Your task to perform on an android device: Search for "lg ultragear" on bestbuy, select the first entry, add it to the cart, then select checkout. Image 0: 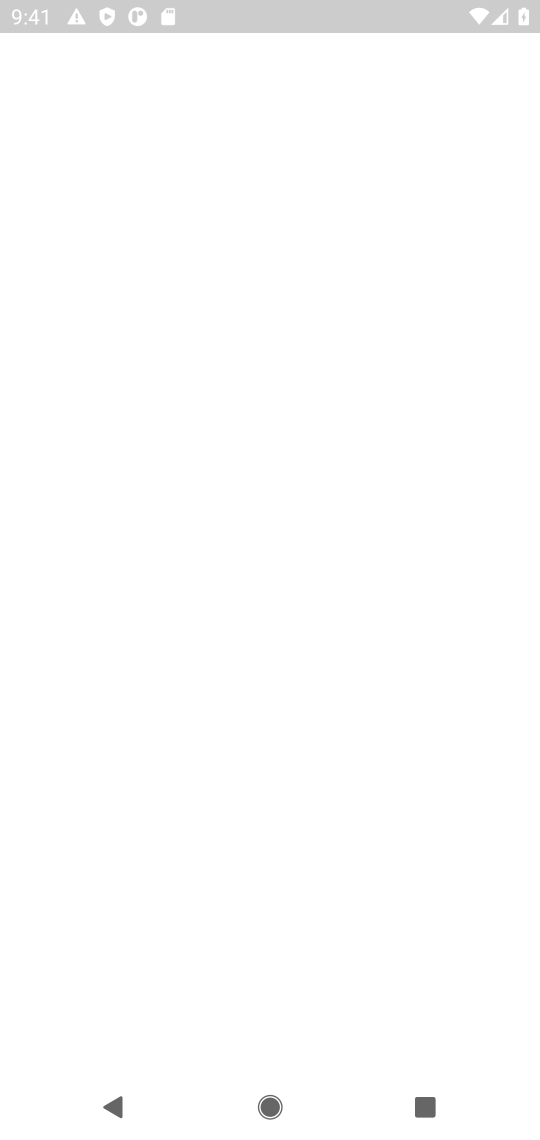
Step 0: press home button
Your task to perform on an android device: Search for "lg ultragear" on bestbuy, select the first entry, add it to the cart, then select checkout. Image 1: 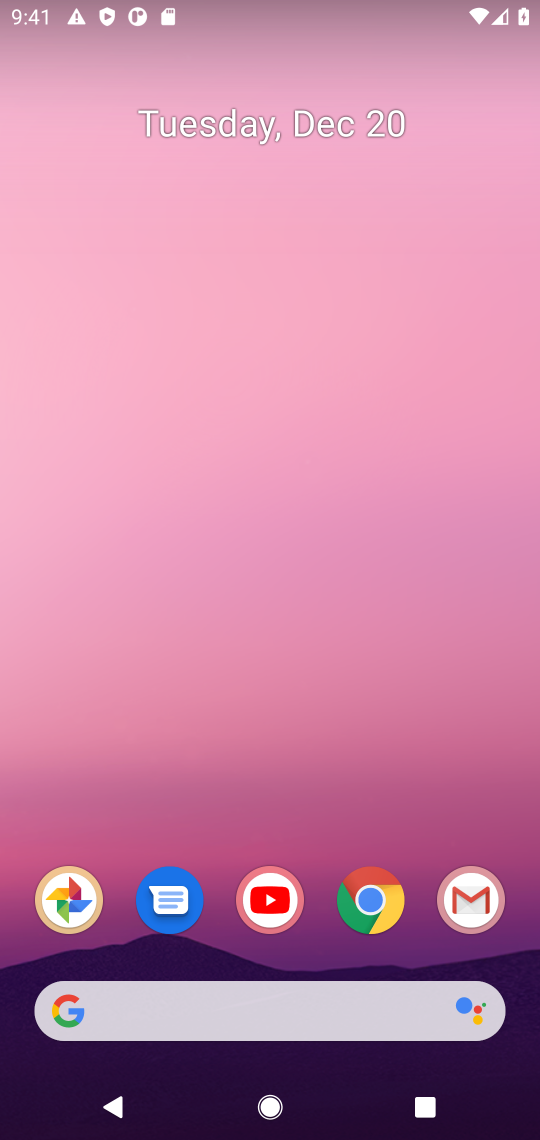
Step 1: click (370, 903)
Your task to perform on an android device: Search for "lg ultragear" on bestbuy, select the first entry, add it to the cart, then select checkout. Image 2: 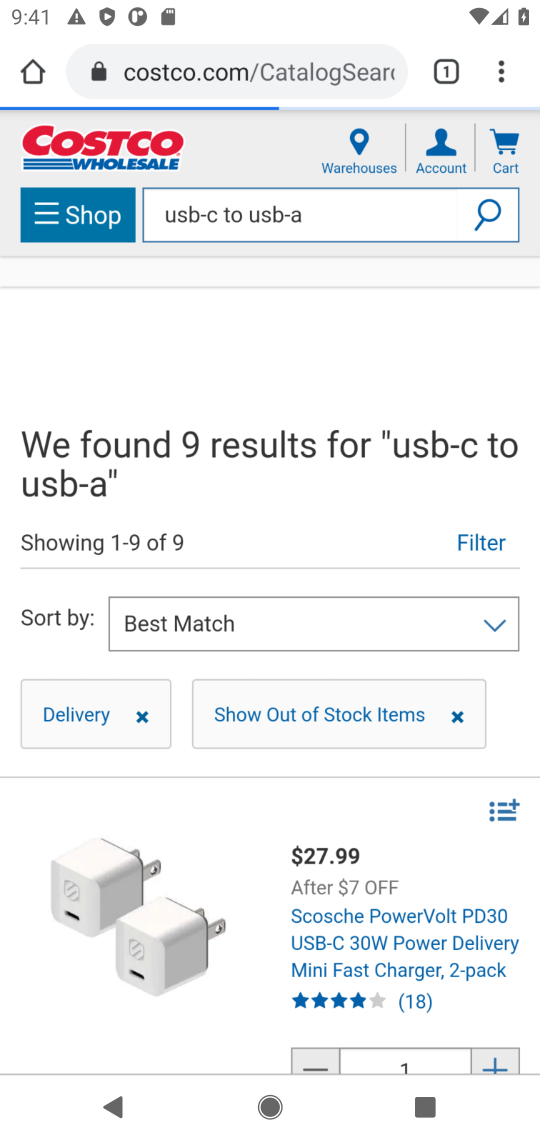
Step 2: click (248, 65)
Your task to perform on an android device: Search for "lg ultragear" on bestbuy, select the first entry, add it to the cart, then select checkout. Image 3: 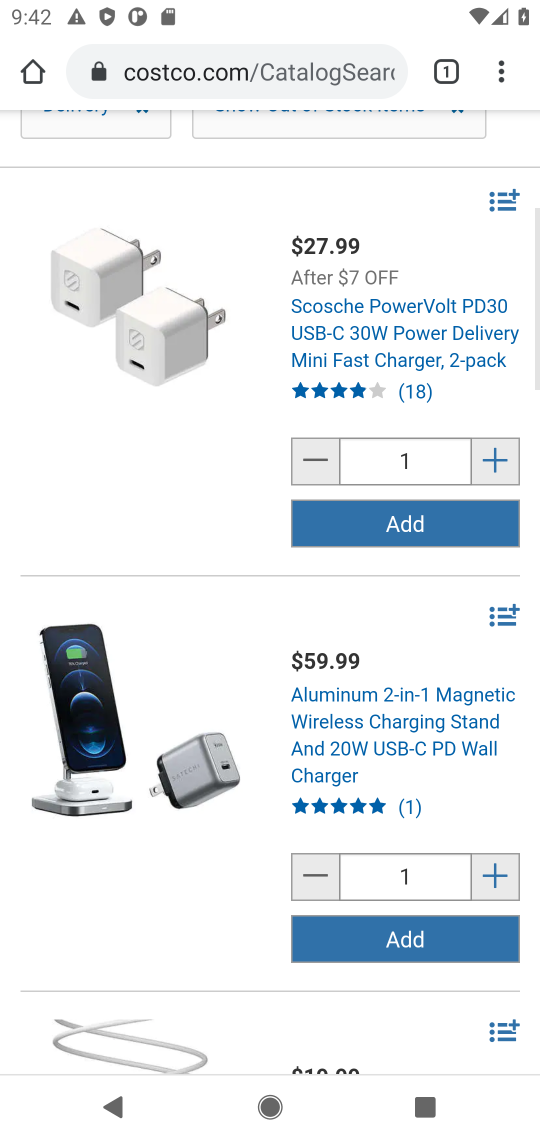
Step 3: click (206, 71)
Your task to perform on an android device: Search for "lg ultragear" on bestbuy, select the first entry, add it to the cart, then select checkout. Image 4: 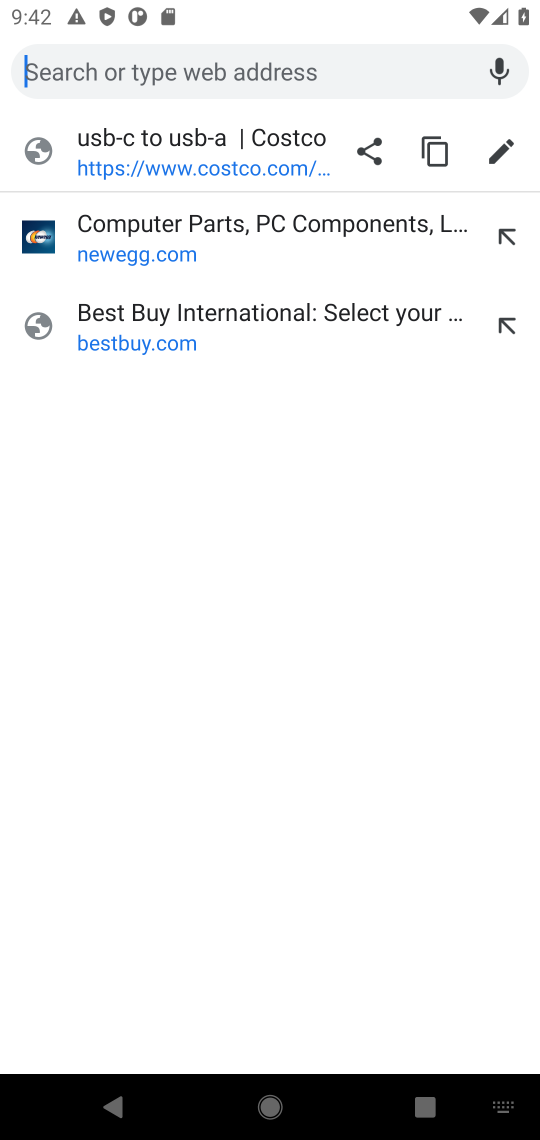
Step 4: click (116, 329)
Your task to perform on an android device: Search for "lg ultragear" on bestbuy, select the first entry, add it to the cart, then select checkout. Image 5: 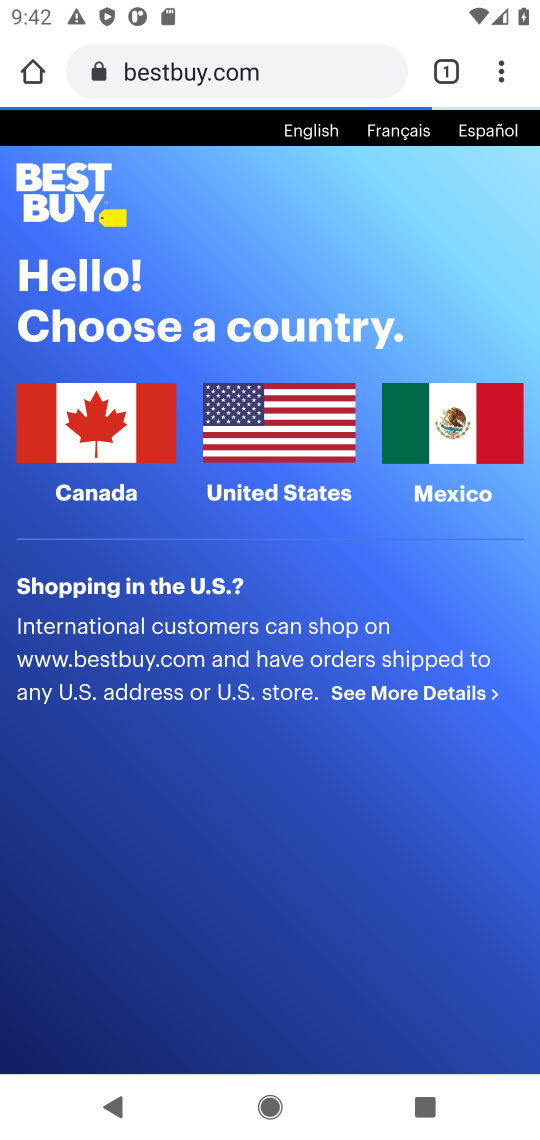
Step 5: click (254, 413)
Your task to perform on an android device: Search for "lg ultragear" on bestbuy, select the first entry, add it to the cart, then select checkout. Image 6: 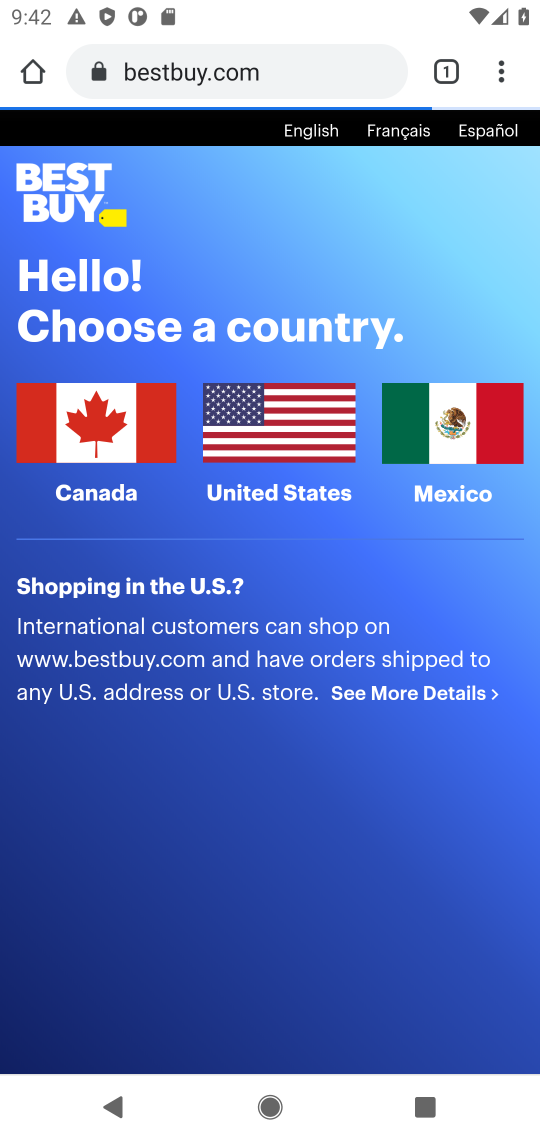
Step 6: click (254, 413)
Your task to perform on an android device: Search for "lg ultragear" on bestbuy, select the first entry, add it to the cart, then select checkout. Image 7: 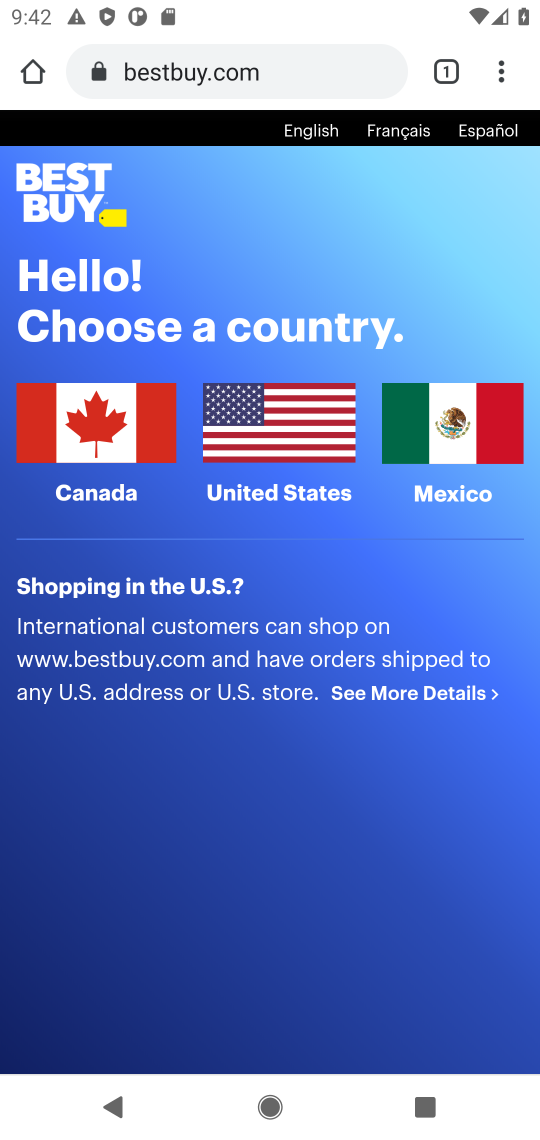
Step 7: click (275, 493)
Your task to perform on an android device: Search for "lg ultragear" on bestbuy, select the first entry, add it to the cart, then select checkout. Image 8: 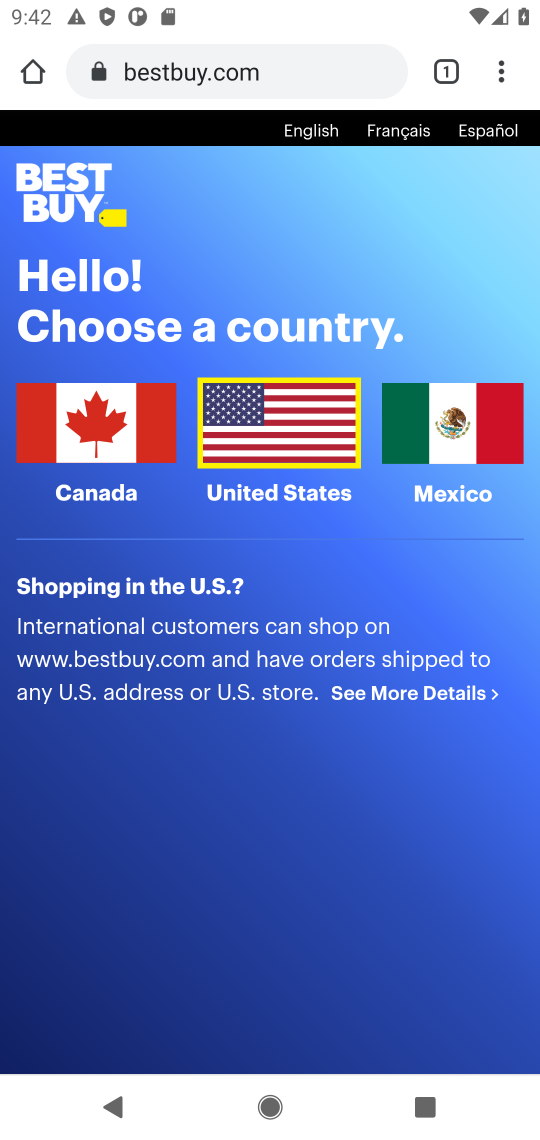
Step 8: click (273, 460)
Your task to perform on an android device: Search for "lg ultragear" on bestbuy, select the first entry, add it to the cart, then select checkout. Image 9: 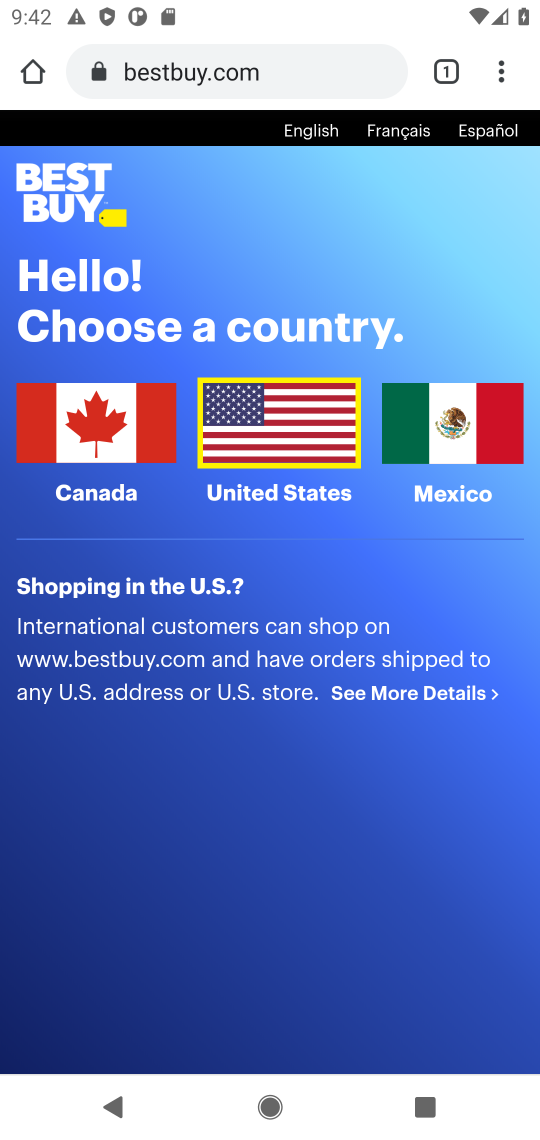
Step 9: click (276, 433)
Your task to perform on an android device: Search for "lg ultragear" on bestbuy, select the first entry, add it to the cart, then select checkout. Image 10: 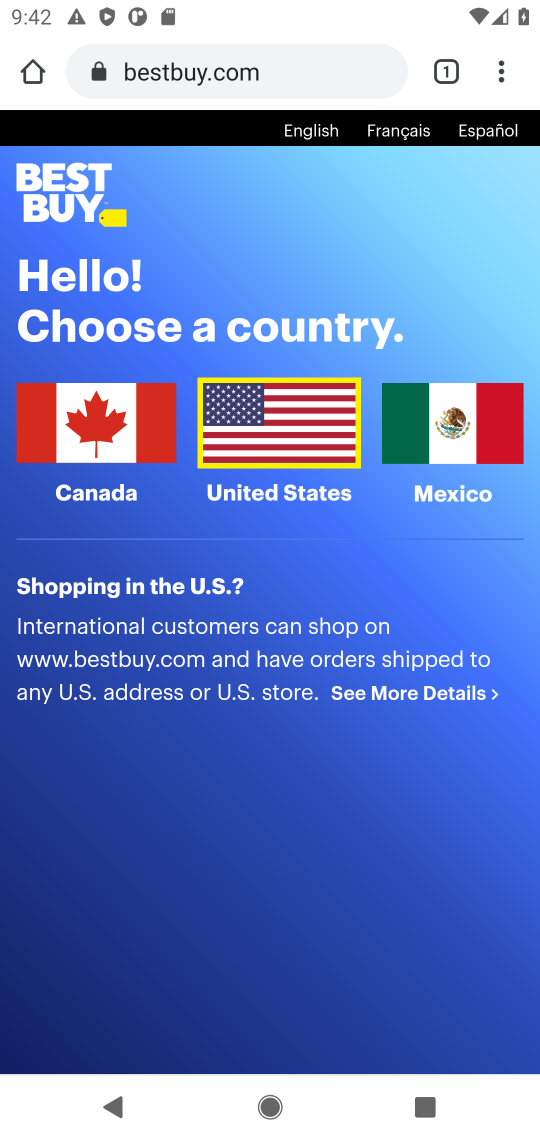
Step 10: click (276, 433)
Your task to perform on an android device: Search for "lg ultragear" on bestbuy, select the first entry, add it to the cart, then select checkout. Image 11: 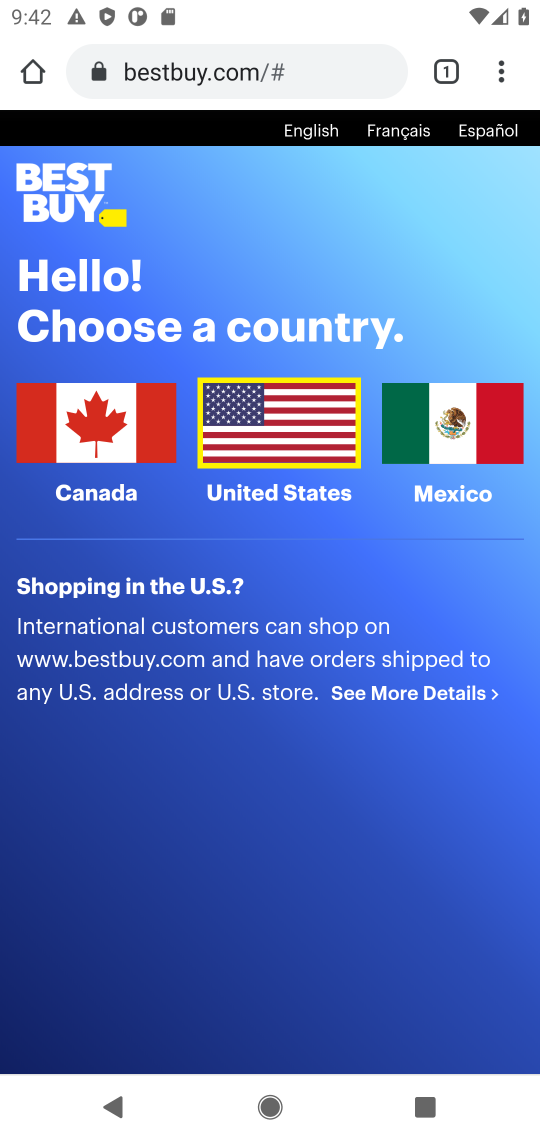
Step 11: click (276, 433)
Your task to perform on an android device: Search for "lg ultragear" on bestbuy, select the first entry, add it to the cart, then select checkout. Image 12: 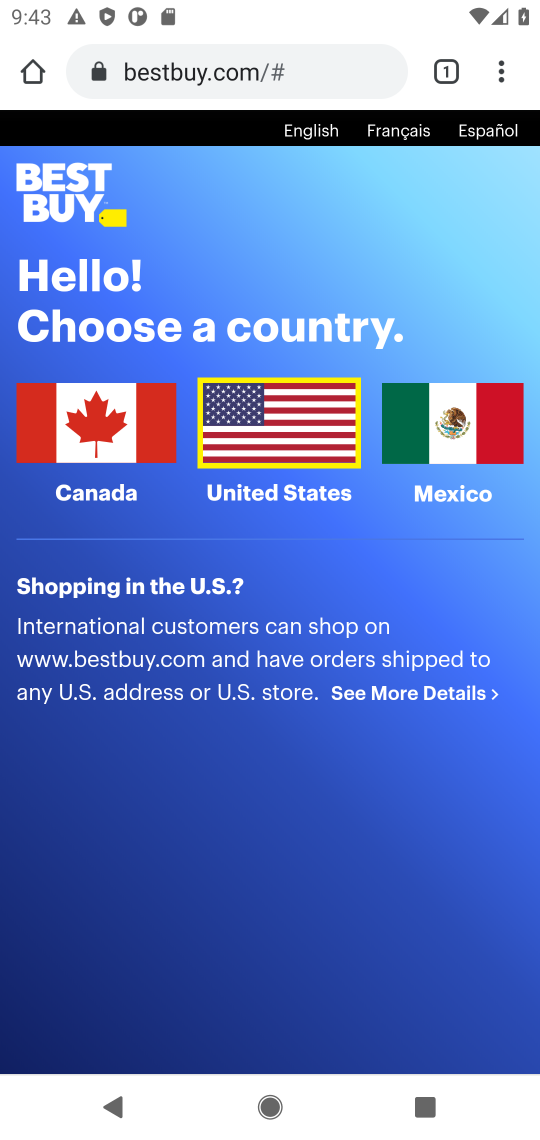
Step 12: click (280, 501)
Your task to perform on an android device: Search for "lg ultragear" on bestbuy, select the first entry, add it to the cart, then select checkout. Image 13: 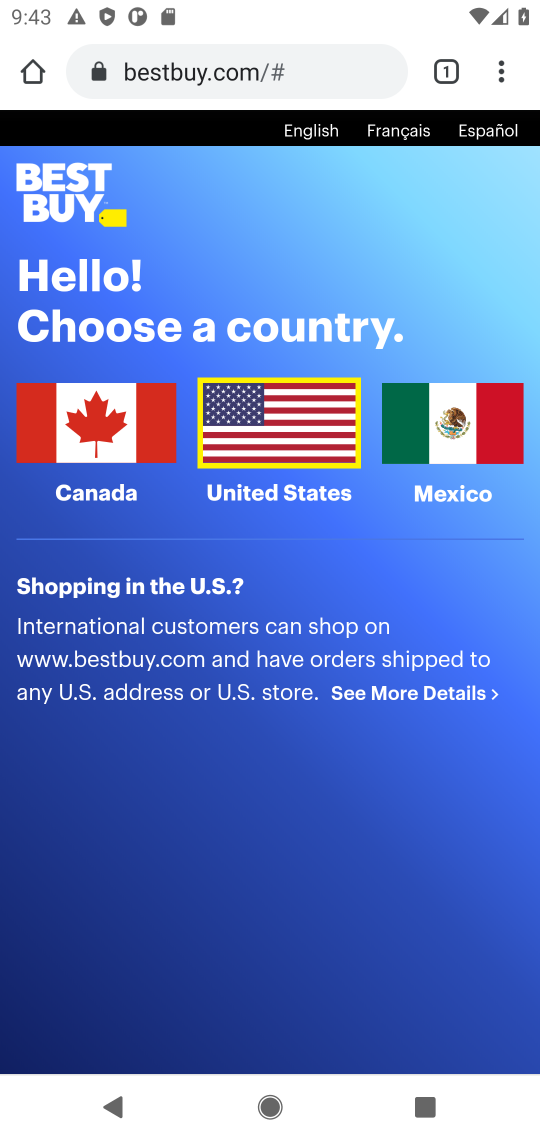
Step 13: click (280, 490)
Your task to perform on an android device: Search for "lg ultragear" on bestbuy, select the first entry, add it to the cart, then select checkout. Image 14: 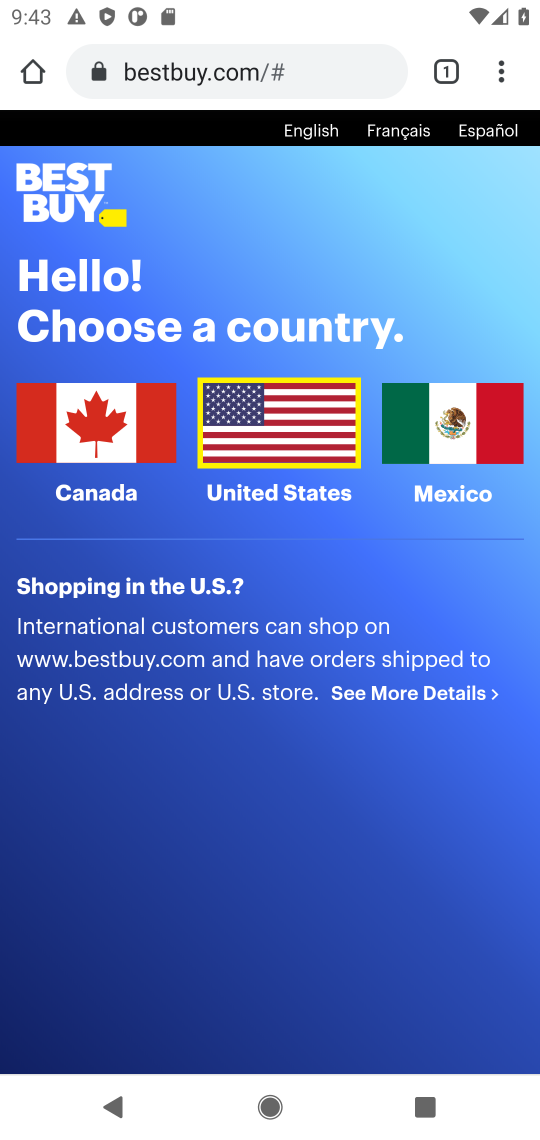
Step 14: click (260, 444)
Your task to perform on an android device: Search for "lg ultragear" on bestbuy, select the first entry, add it to the cart, then select checkout. Image 15: 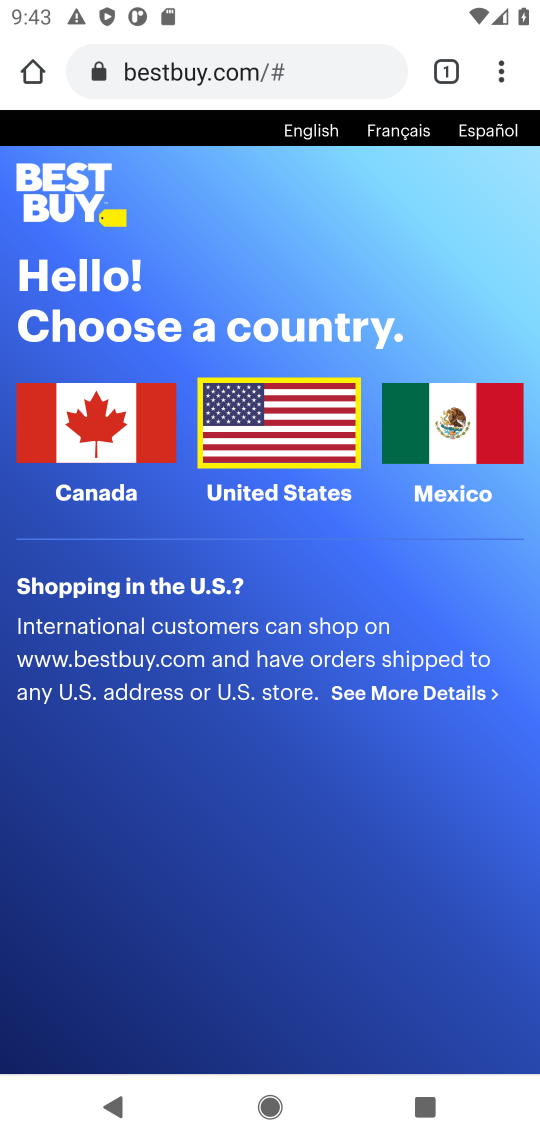
Step 15: drag from (262, 515) to (271, 715)
Your task to perform on an android device: Search for "lg ultragear" on bestbuy, select the first entry, add it to the cart, then select checkout. Image 16: 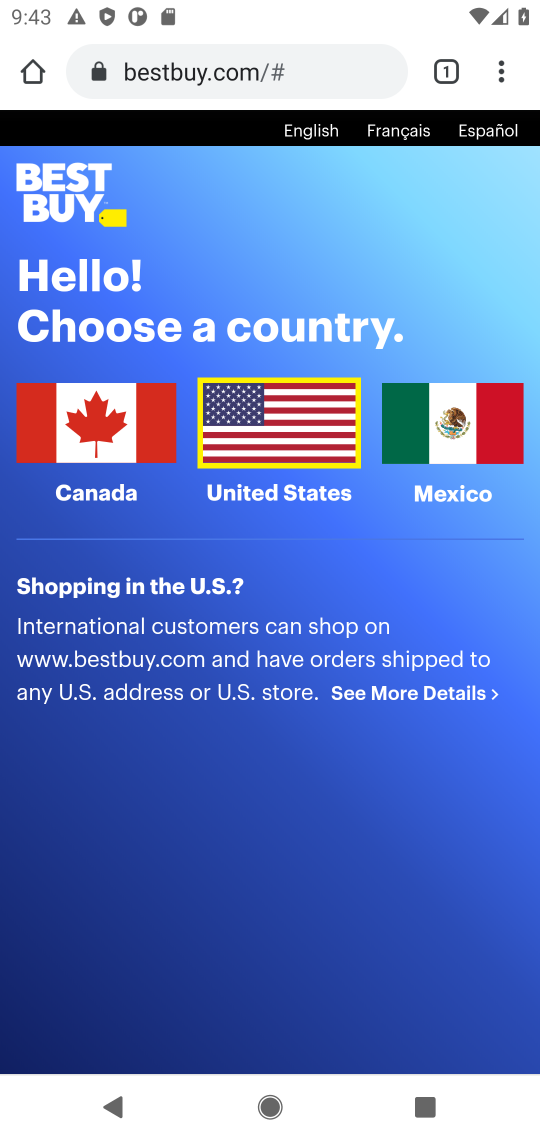
Step 16: drag from (232, 182) to (182, 565)
Your task to perform on an android device: Search for "lg ultragear" on bestbuy, select the first entry, add it to the cart, then select checkout. Image 17: 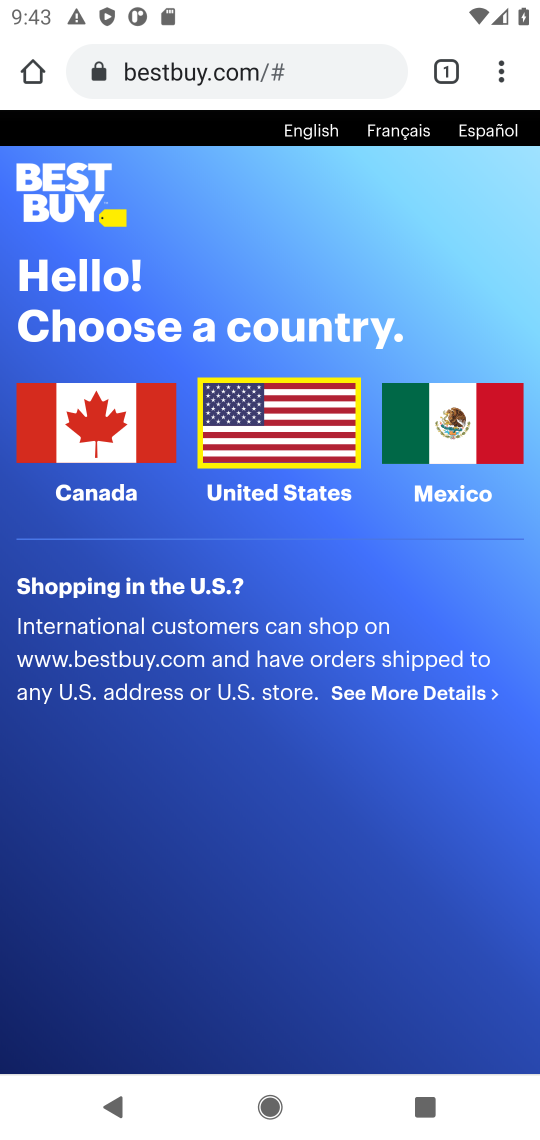
Step 17: click (270, 414)
Your task to perform on an android device: Search for "lg ultragear" on bestbuy, select the first entry, add it to the cart, then select checkout. Image 18: 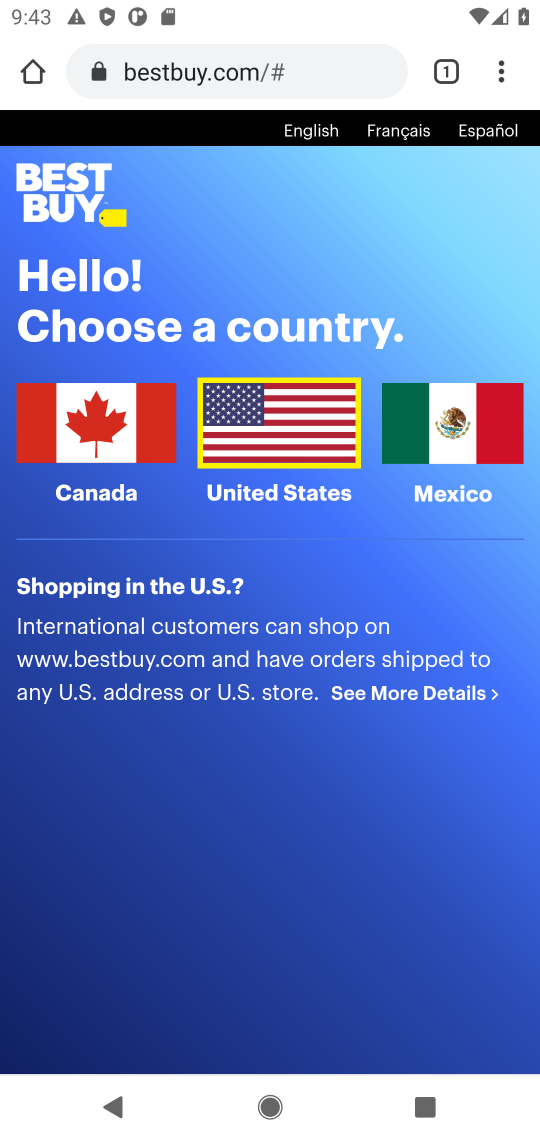
Step 18: click (270, 415)
Your task to perform on an android device: Search for "lg ultragear" on bestbuy, select the first entry, add it to the cart, then select checkout. Image 19: 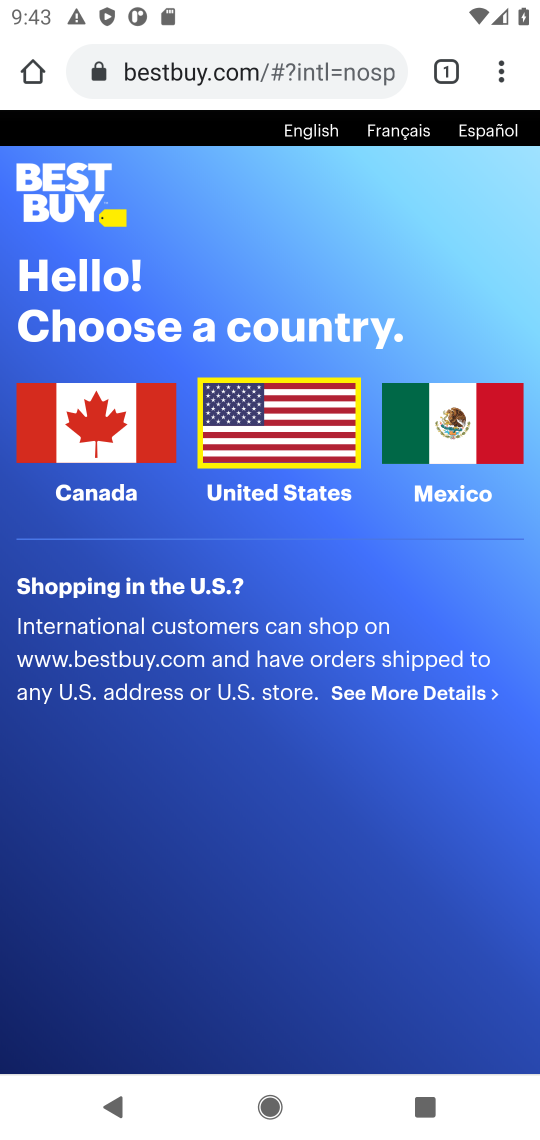
Step 19: click (283, 443)
Your task to perform on an android device: Search for "lg ultragear" on bestbuy, select the first entry, add it to the cart, then select checkout. Image 20: 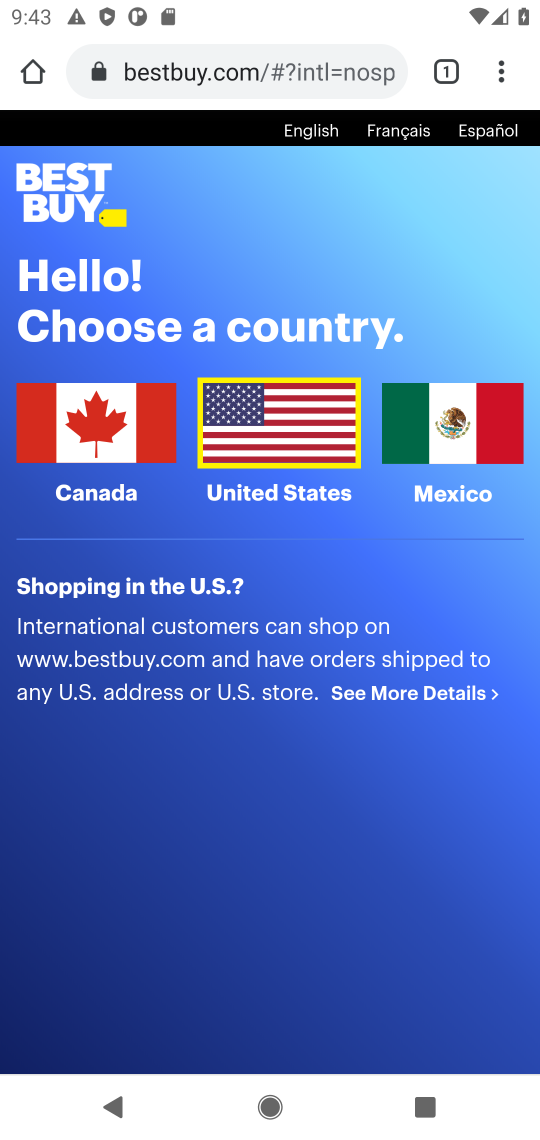
Step 20: click (283, 443)
Your task to perform on an android device: Search for "lg ultragear" on bestbuy, select the first entry, add it to the cart, then select checkout. Image 21: 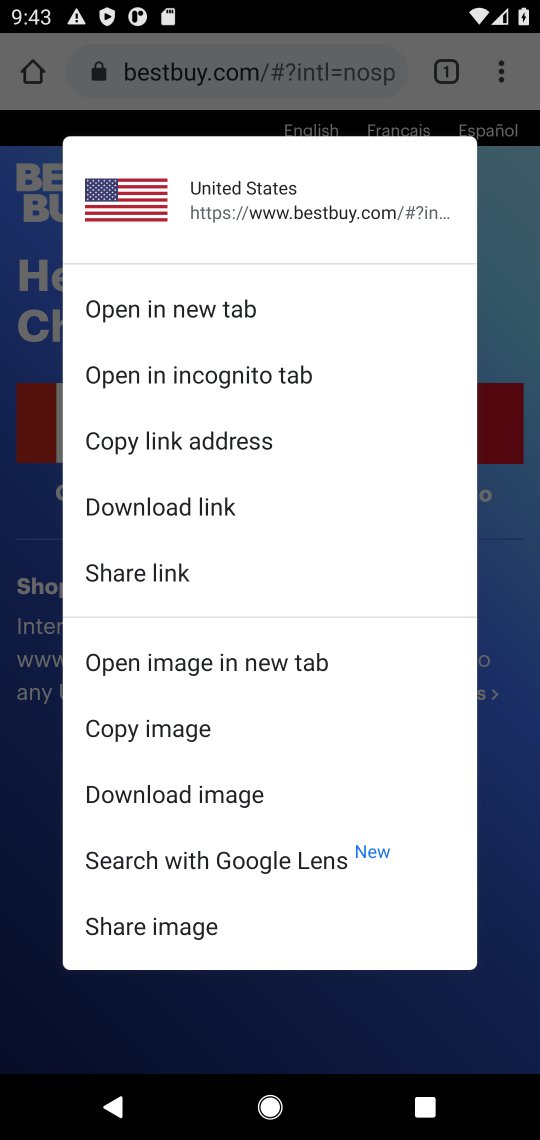
Step 21: click (503, 498)
Your task to perform on an android device: Search for "lg ultragear" on bestbuy, select the first entry, add it to the cart, then select checkout. Image 22: 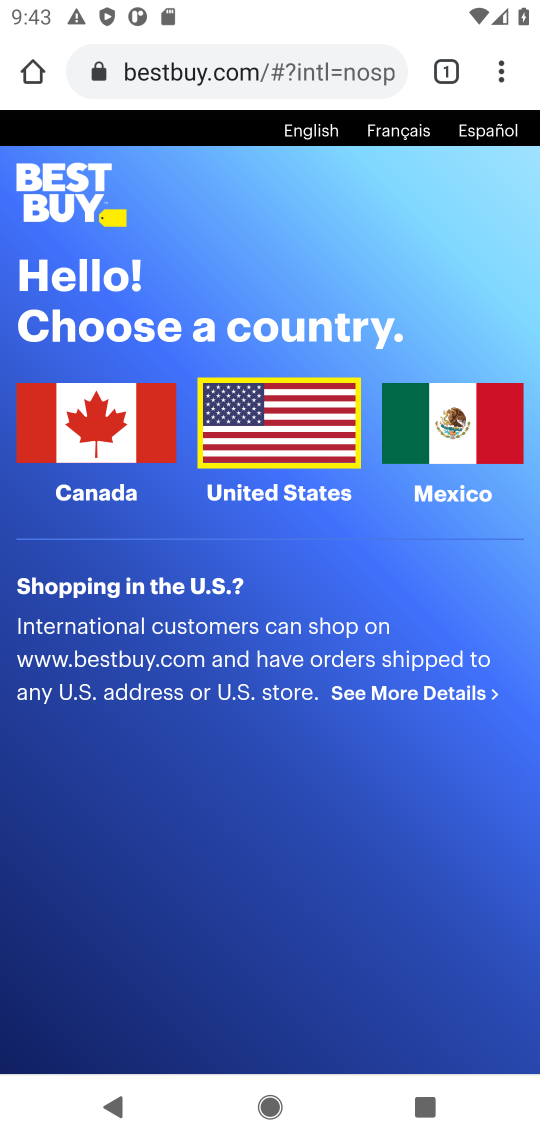
Step 22: click (297, 436)
Your task to perform on an android device: Search for "lg ultragear" on bestbuy, select the first entry, add it to the cart, then select checkout. Image 23: 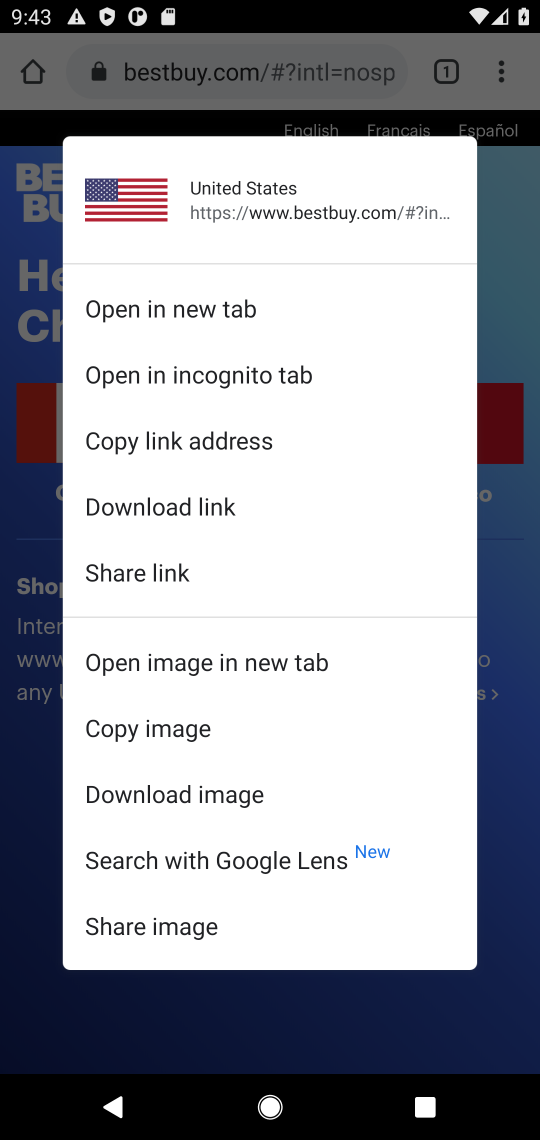
Step 23: click (500, 644)
Your task to perform on an android device: Search for "lg ultragear" on bestbuy, select the first entry, add it to the cart, then select checkout. Image 24: 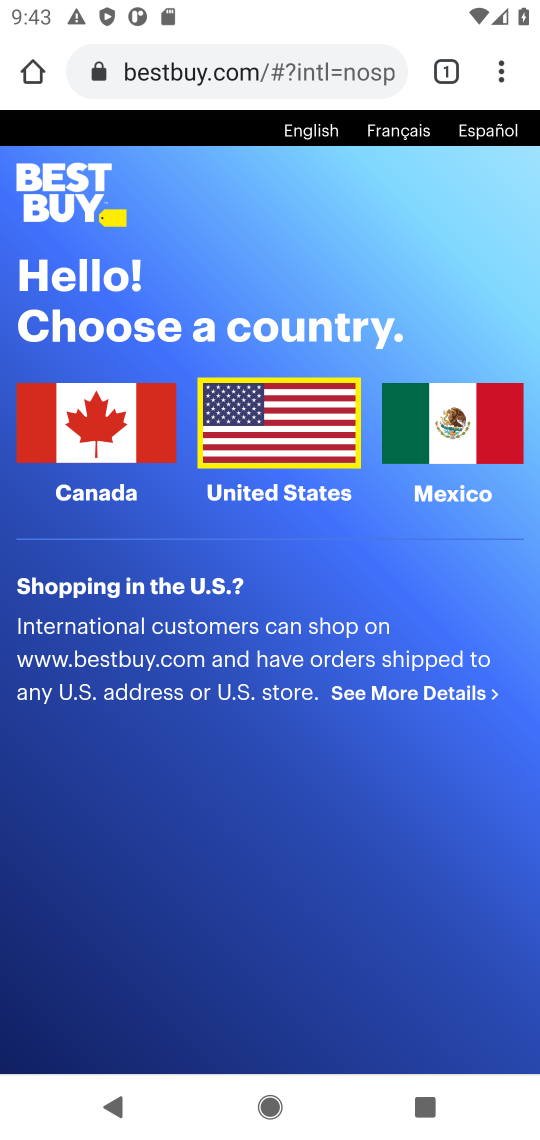
Step 24: click (278, 457)
Your task to perform on an android device: Search for "lg ultragear" on bestbuy, select the first entry, add it to the cart, then select checkout. Image 25: 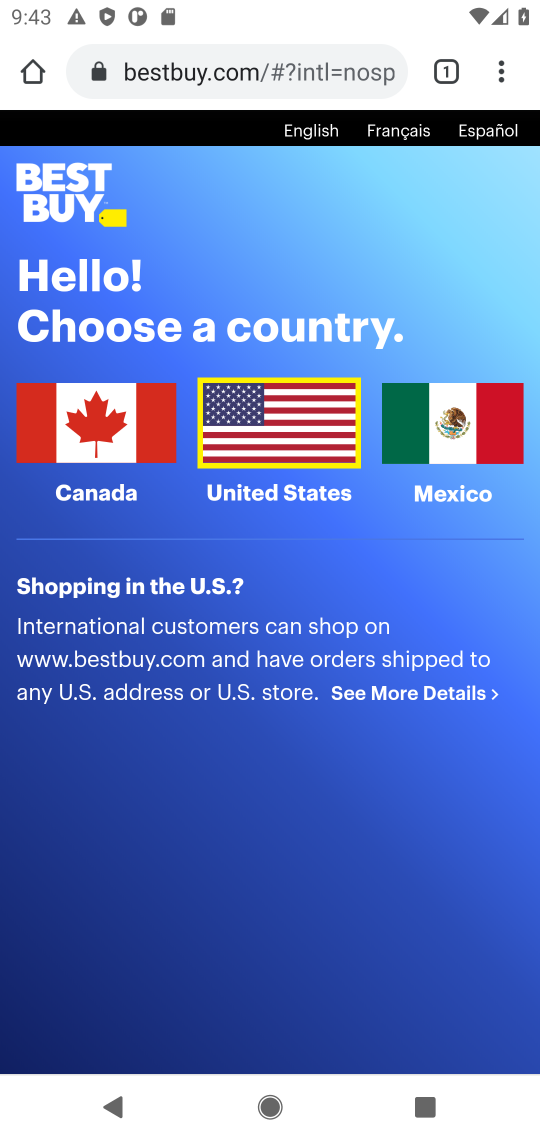
Step 25: click (275, 431)
Your task to perform on an android device: Search for "lg ultragear" on bestbuy, select the first entry, add it to the cart, then select checkout. Image 26: 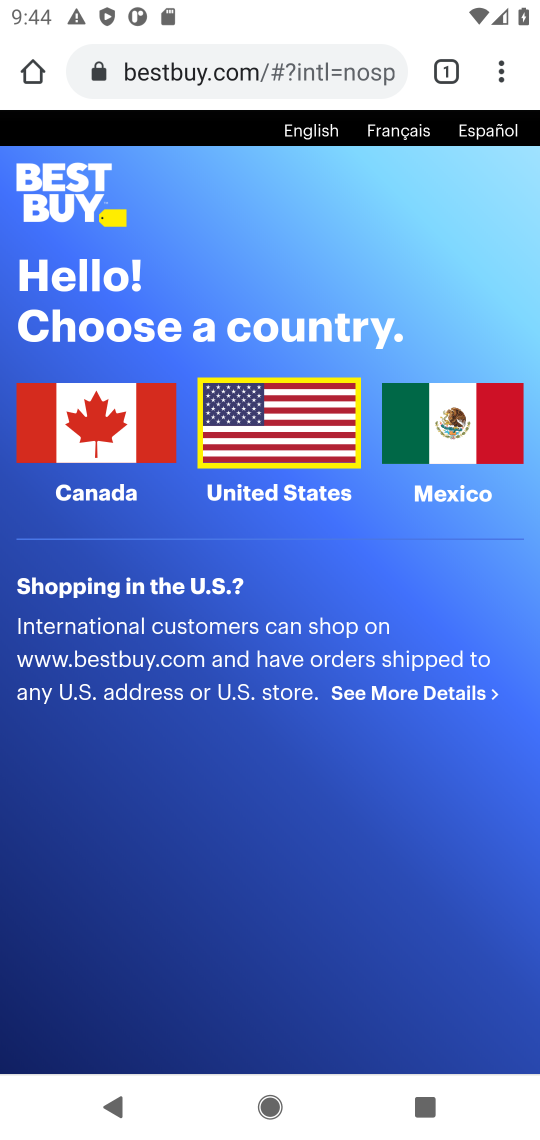
Step 26: click (89, 438)
Your task to perform on an android device: Search for "lg ultragear" on bestbuy, select the first entry, add it to the cart, then select checkout. Image 27: 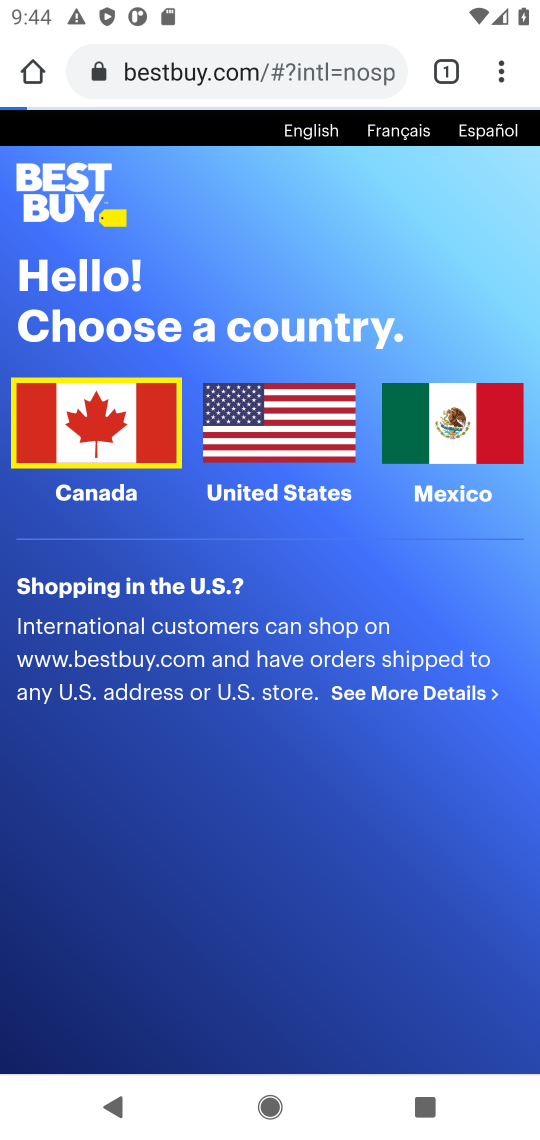
Step 27: click (88, 508)
Your task to perform on an android device: Search for "lg ultragear" on bestbuy, select the first entry, add it to the cart, then select checkout. Image 28: 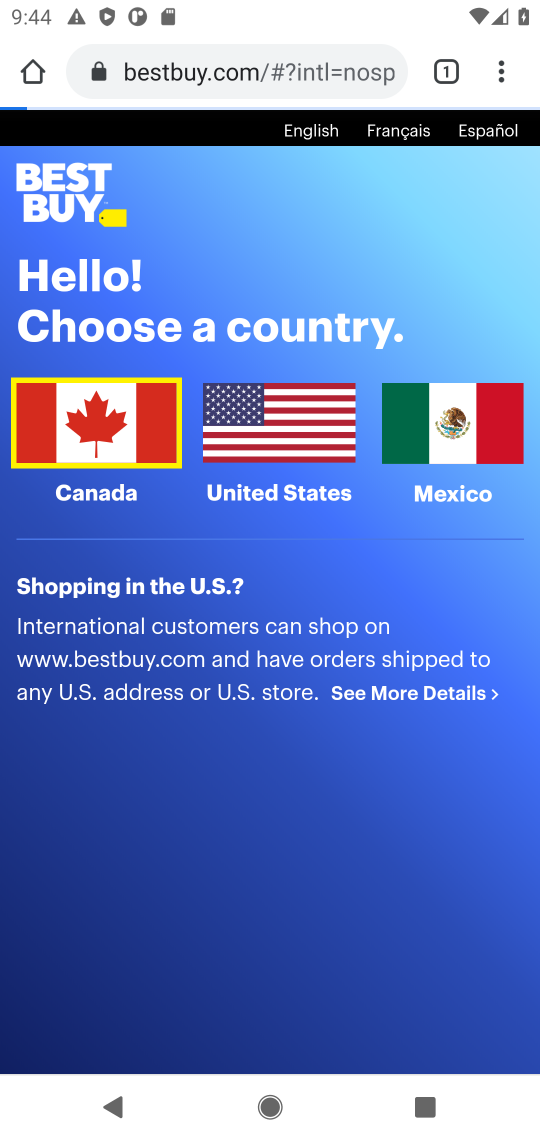
Step 28: click (91, 444)
Your task to perform on an android device: Search for "lg ultragear" on bestbuy, select the first entry, add it to the cart, then select checkout. Image 29: 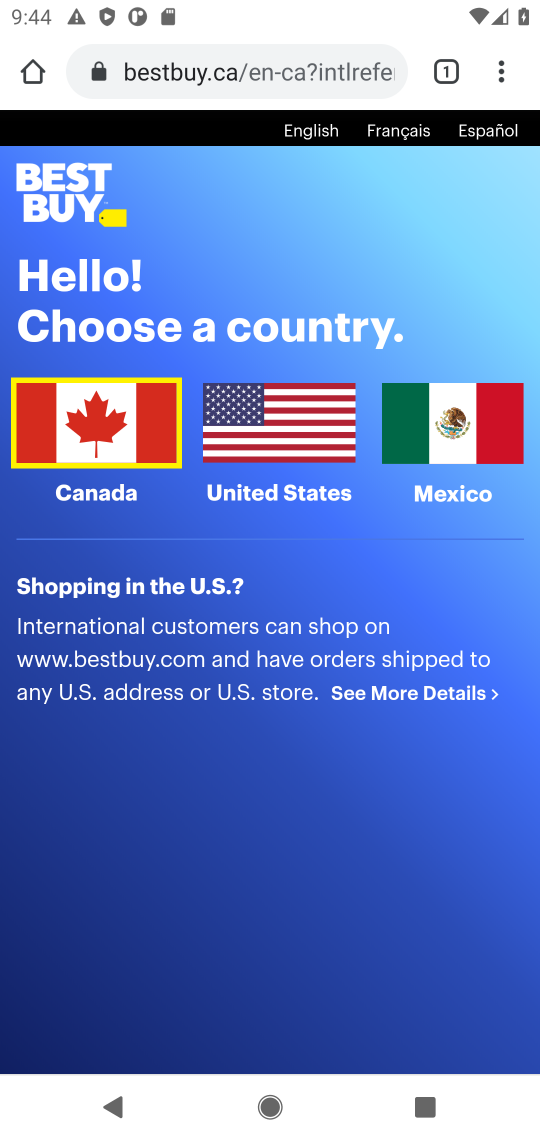
Step 29: click (332, 427)
Your task to perform on an android device: Search for "lg ultragear" on bestbuy, select the first entry, add it to the cart, then select checkout. Image 30: 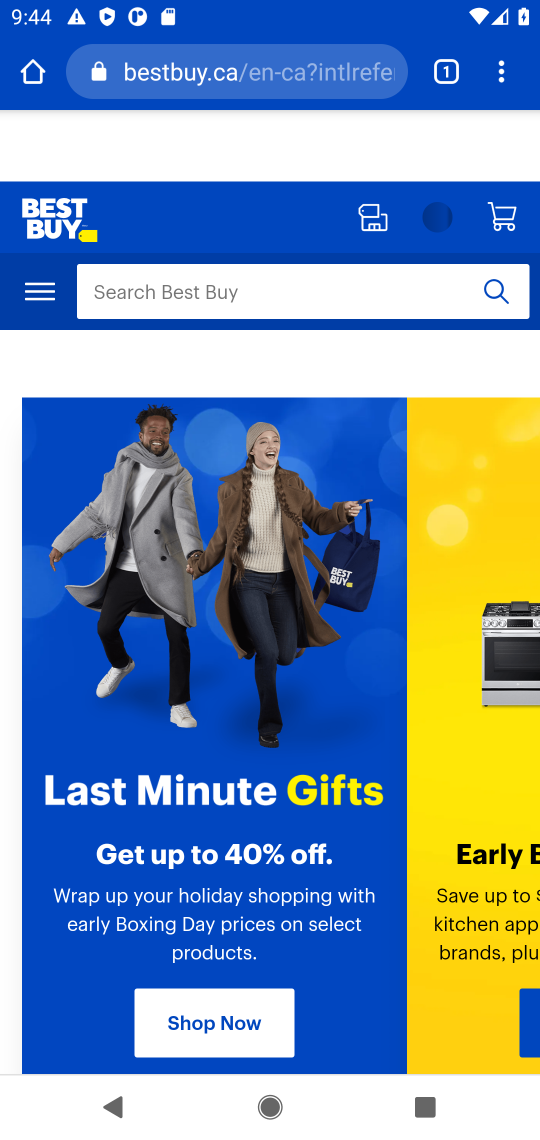
Step 30: click (211, 298)
Your task to perform on an android device: Search for "lg ultragear" on bestbuy, select the first entry, add it to the cart, then select checkout. Image 31: 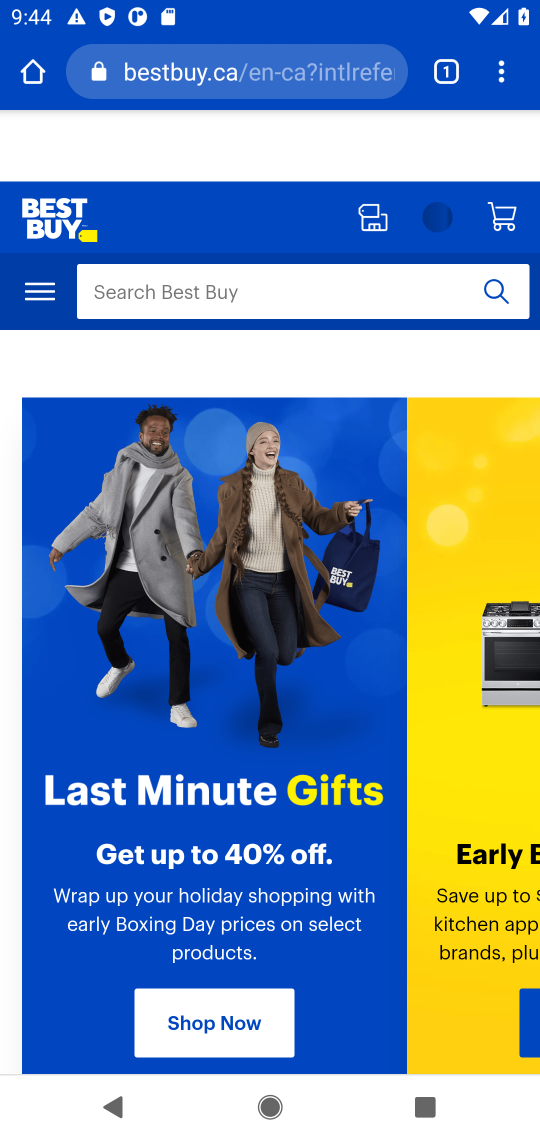
Step 31: click (211, 298)
Your task to perform on an android device: Search for "lg ultragear" on bestbuy, select the first entry, add it to the cart, then select checkout. Image 32: 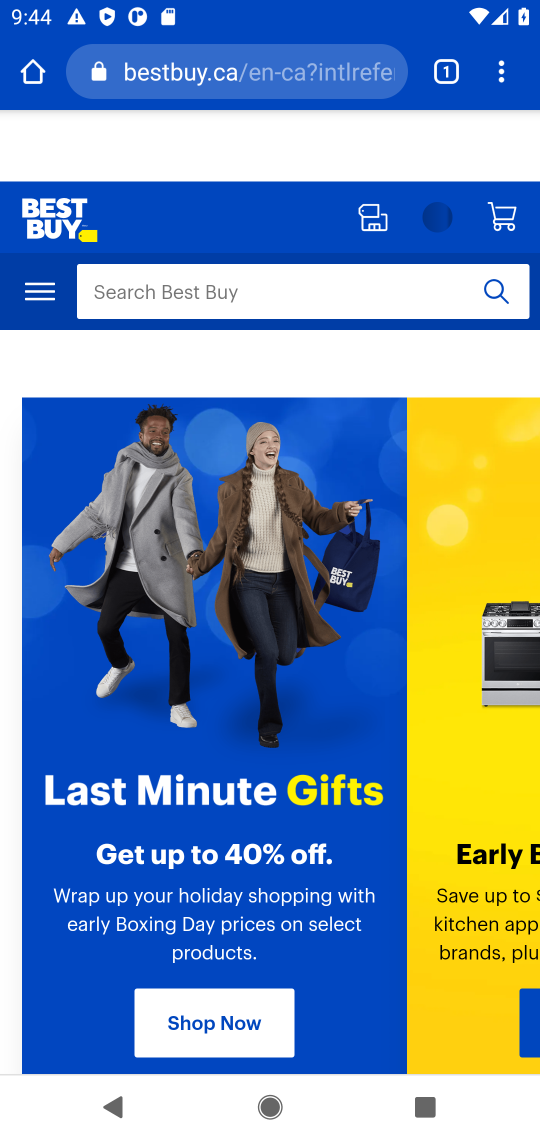
Step 32: click (99, 289)
Your task to perform on an android device: Search for "lg ultragear" on bestbuy, select the first entry, add it to the cart, then select checkout. Image 33: 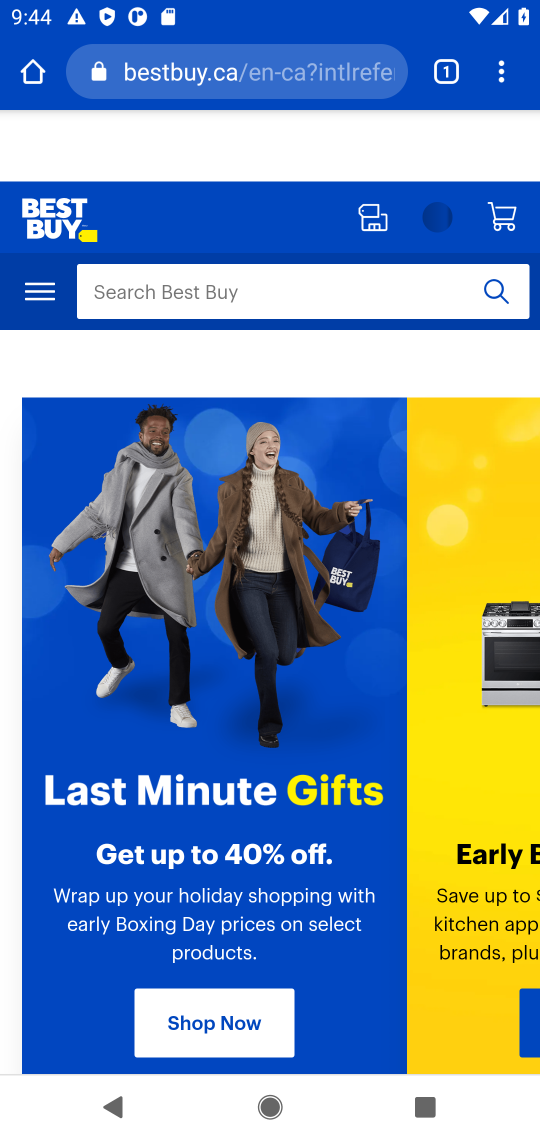
Step 33: click (167, 290)
Your task to perform on an android device: Search for "lg ultragear" on bestbuy, select the first entry, add it to the cart, then select checkout. Image 34: 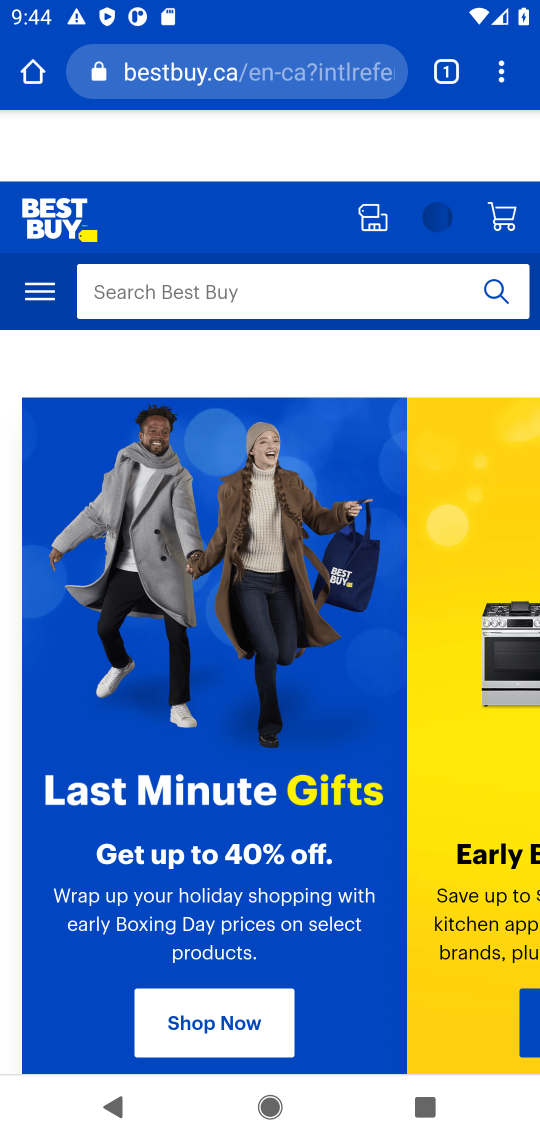
Step 34: click (498, 293)
Your task to perform on an android device: Search for "lg ultragear" on bestbuy, select the first entry, add it to the cart, then select checkout. Image 35: 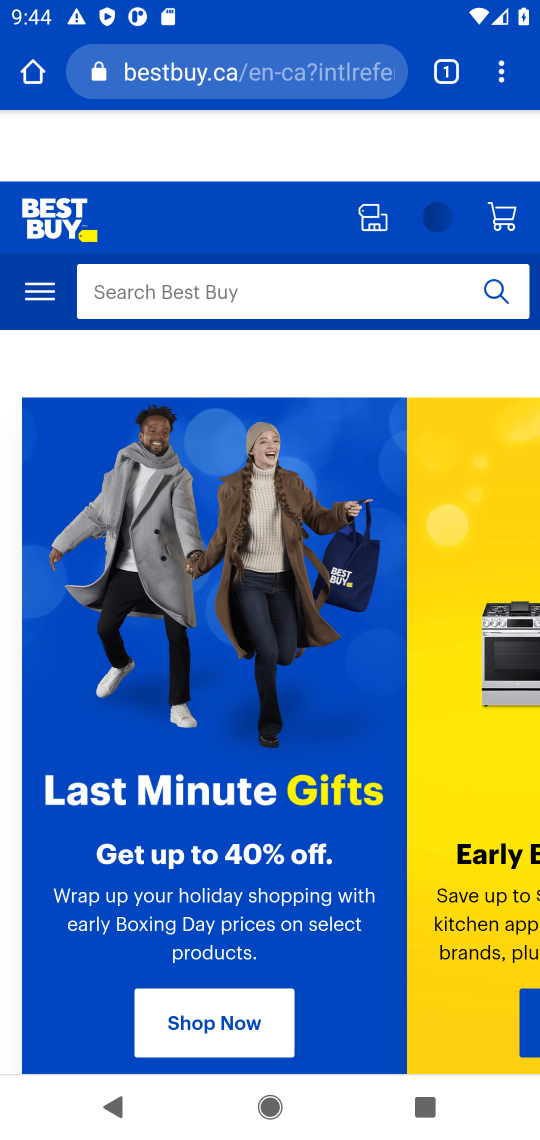
Step 35: click (190, 286)
Your task to perform on an android device: Search for "lg ultragear" on bestbuy, select the first entry, add it to the cart, then select checkout. Image 36: 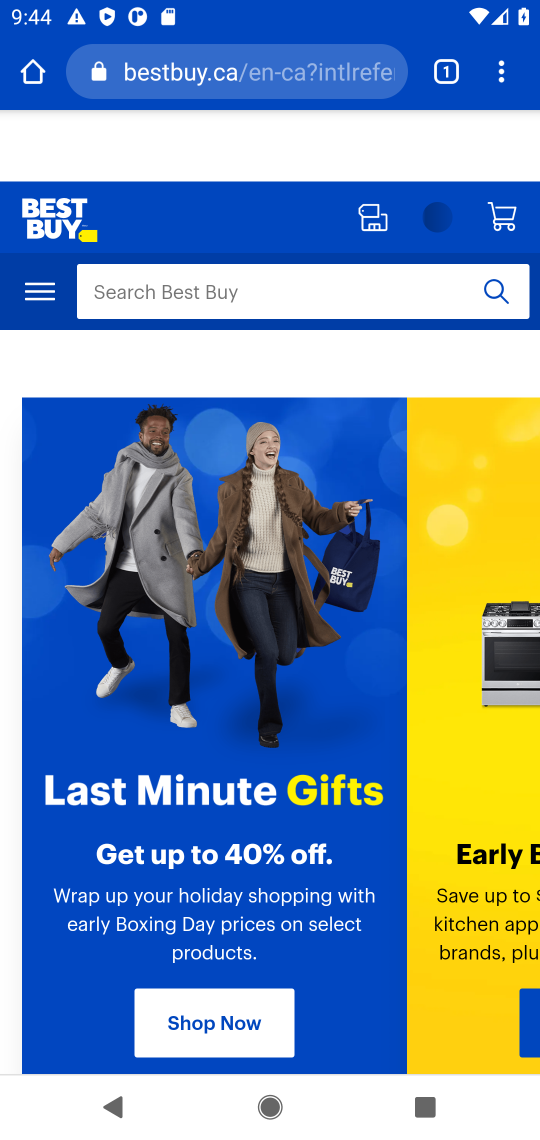
Step 36: click (127, 296)
Your task to perform on an android device: Search for "lg ultragear" on bestbuy, select the first entry, add it to the cart, then select checkout. Image 37: 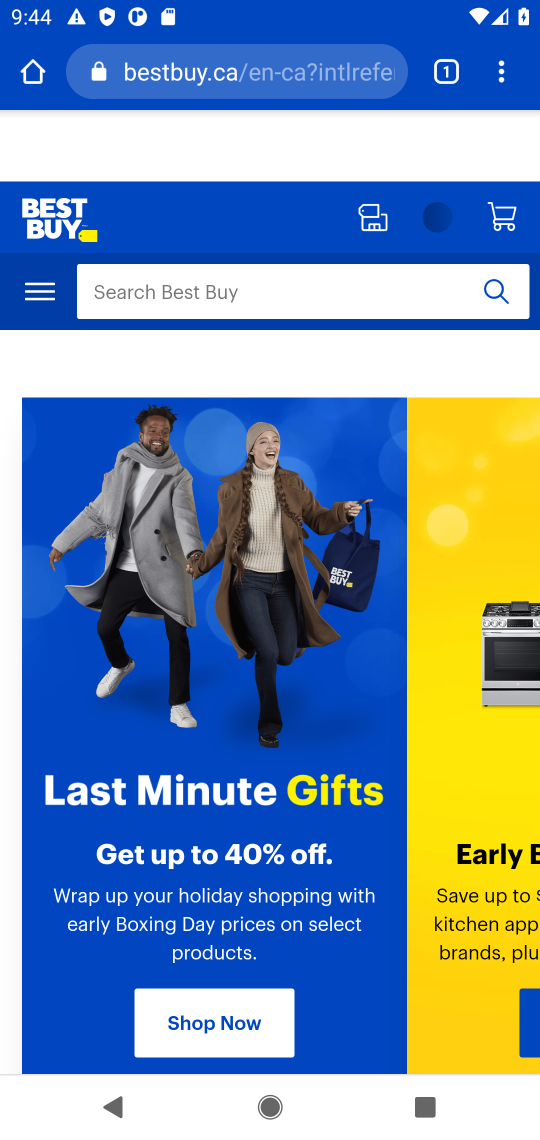
Step 37: click (127, 296)
Your task to perform on an android device: Search for "lg ultragear" on bestbuy, select the first entry, add it to the cart, then select checkout. Image 38: 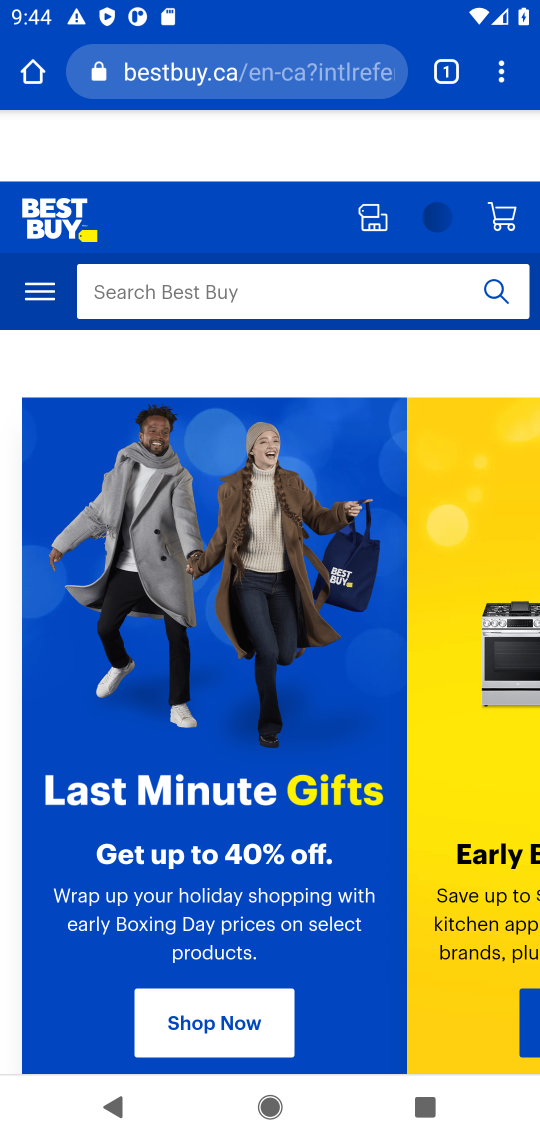
Step 38: click (127, 296)
Your task to perform on an android device: Search for "lg ultragear" on bestbuy, select the first entry, add it to the cart, then select checkout. Image 39: 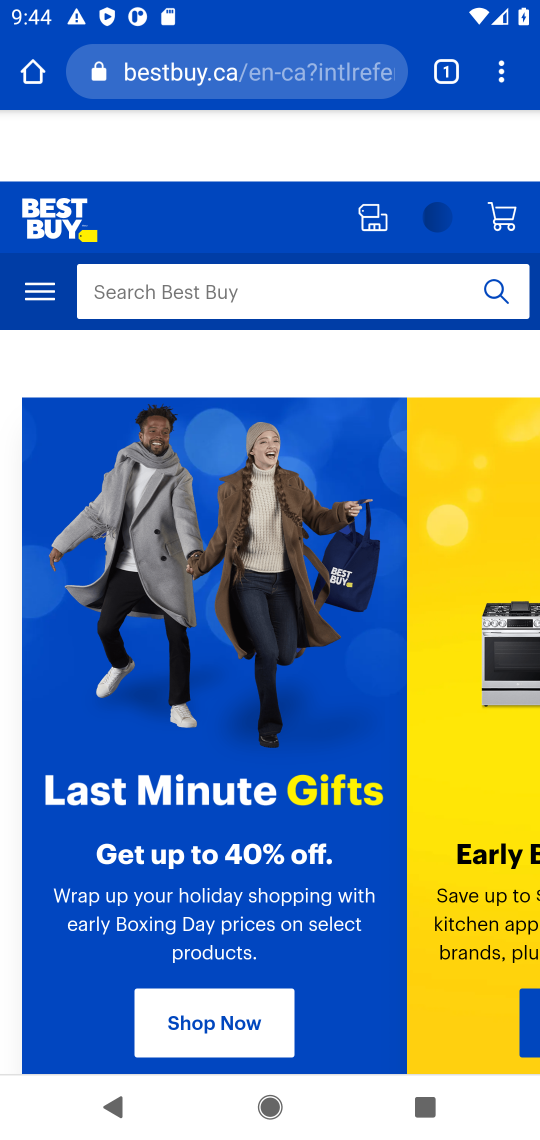
Step 39: click (127, 296)
Your task to perform on an android device: Search for "lg ultragear" on bestbuy, select the first entry, add it to the cart, then select checkout. Image 40: 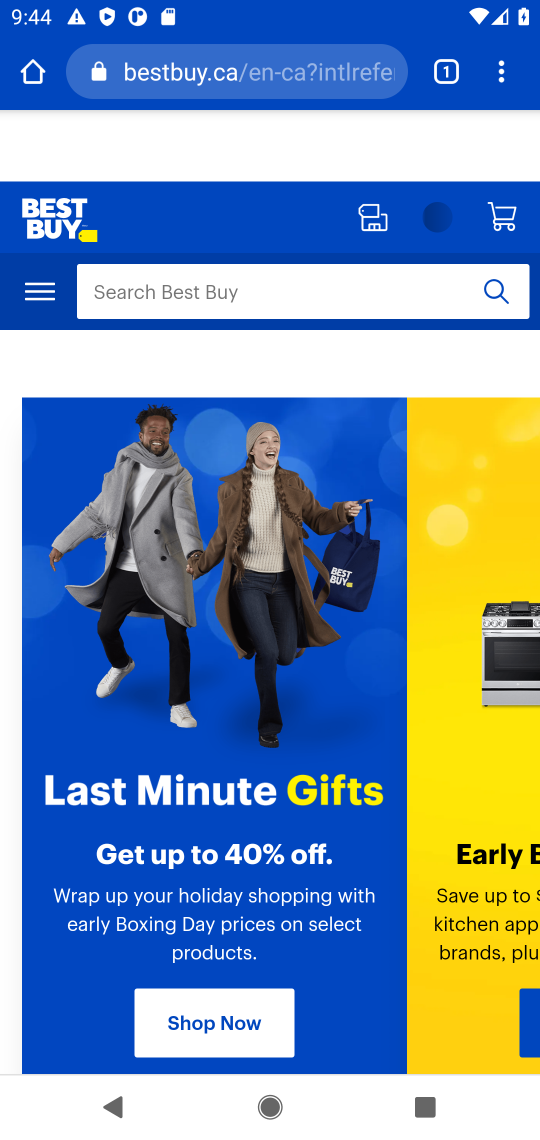
Step 40: click (127, 296)
Your task to perform on an android device: Search for "lg ultragear" on bestbuy, select the first entry, add it to the cart, then select checkout. Image 41: 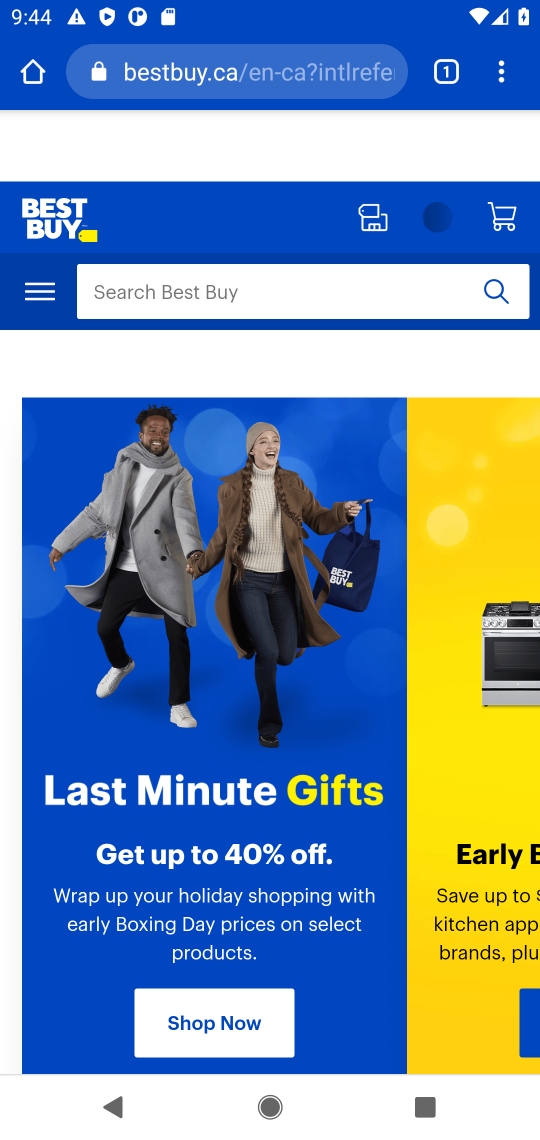
Step 41: click (127, 296)
Your task to perform on an android device: Search for "lg ultragear" on bestbuy, select the first entry, add it to the cart, then select checkout. Image 42: 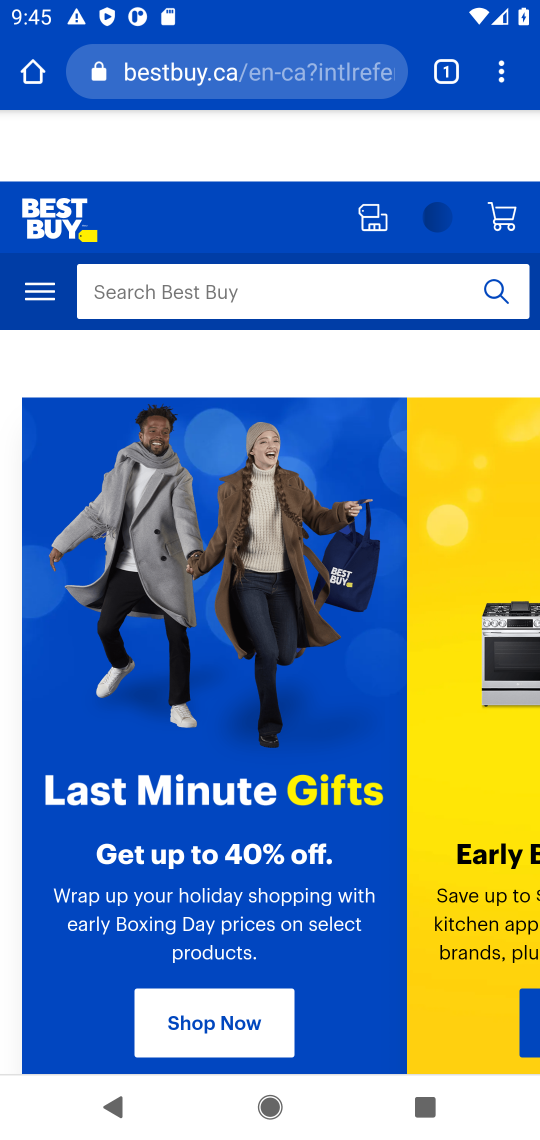
Step 42: type "lg ultragear"
Your task to perform on an android device: Search for "lg ultragear" on bestbuy, select the first entry, add it to the cart, then select checkout. Image 43: 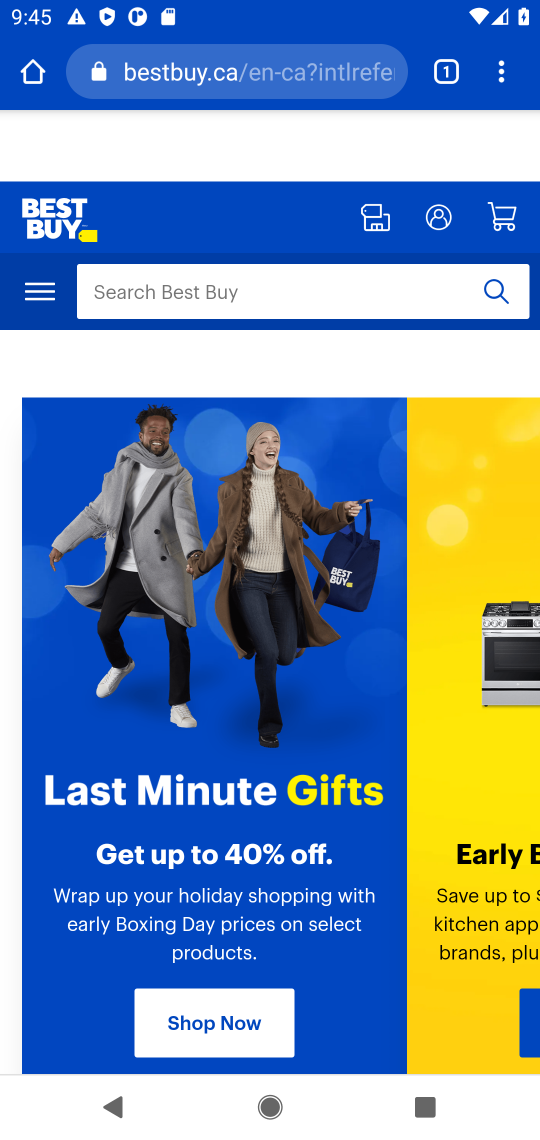
Step 43: task complete